Your task to perform on an android device: Open calendar and show me the first week of next month Image 0: 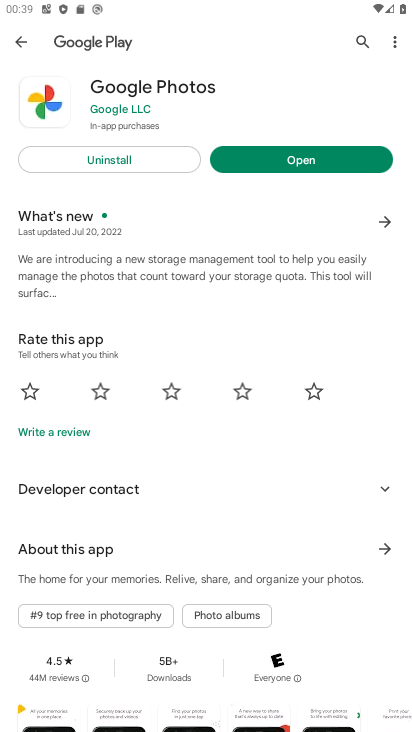
Step 0: press back button
Your task to perform on an android device: Open calendar and show me the first week of next month Image 1: 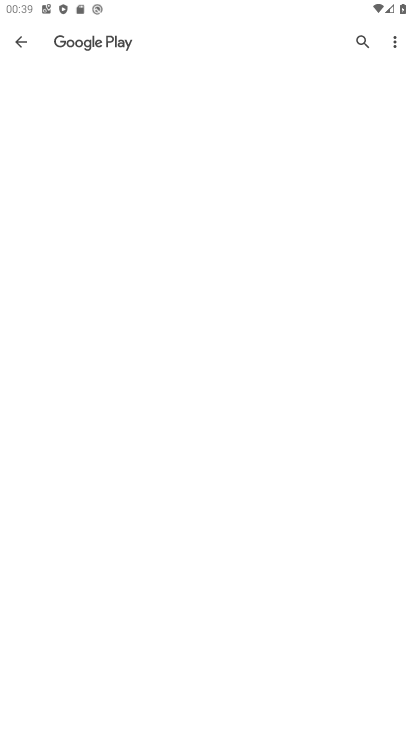
Step 1: press back button
Your task to perform on an android device: Open calendar and show me the first week of next month Image 2: 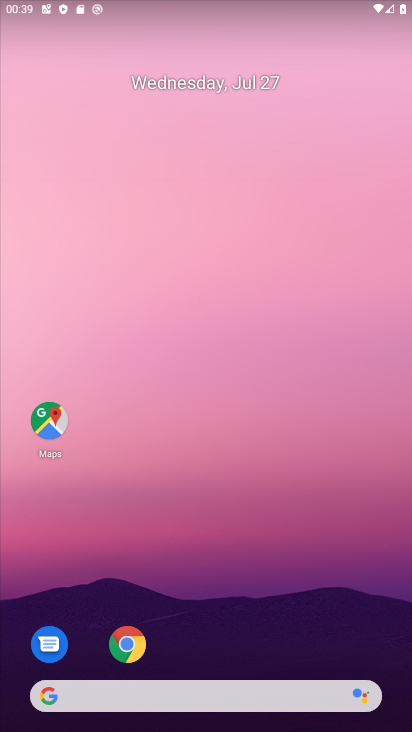
Step 2: drag from (282, 516) to (204, 336)
Your task to perform on an android device: Open calendar and show me the first week of next month Image 3: 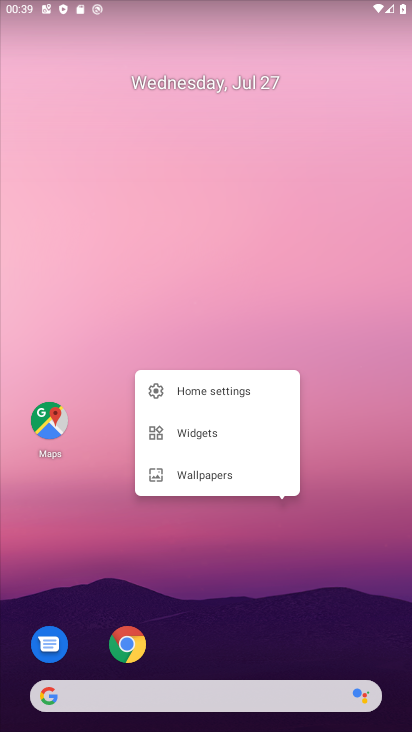
Step 3: drag from (309, 458) to (268, 21)
Your task to perform on an android device: Open calendar and show me the first week of next month Image 4: 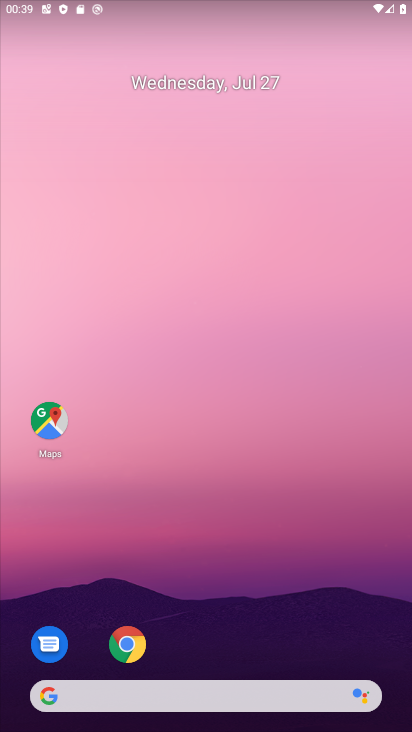
Step 4: drag from (251, 490) to (195, 267)
Your task to perform on an android device: Open calendar and show me the first week of next month Image 5: 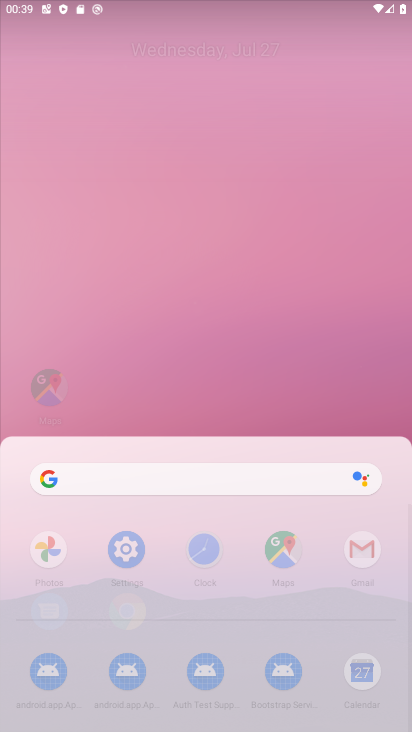
Step 5: drag from (178, 440) to (178, 166)
Your task to perform on an android device: Open calendar and show me the first week of next month Image 6: 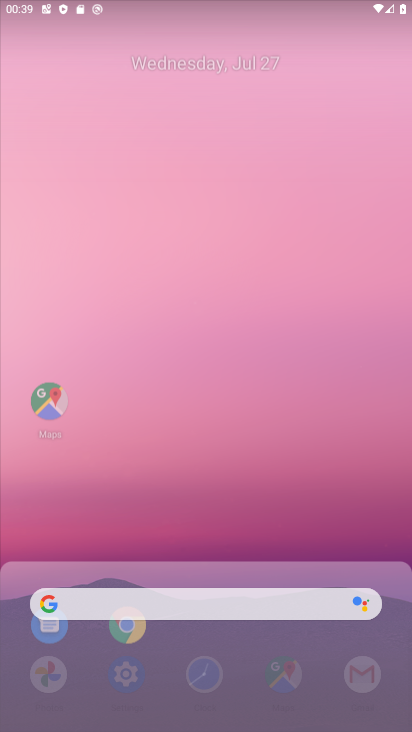
Step 6: drag from (177, 339) to (161, 88)
Your task to perform on an android device: Open calendar and show me the first week of next month Image 7: 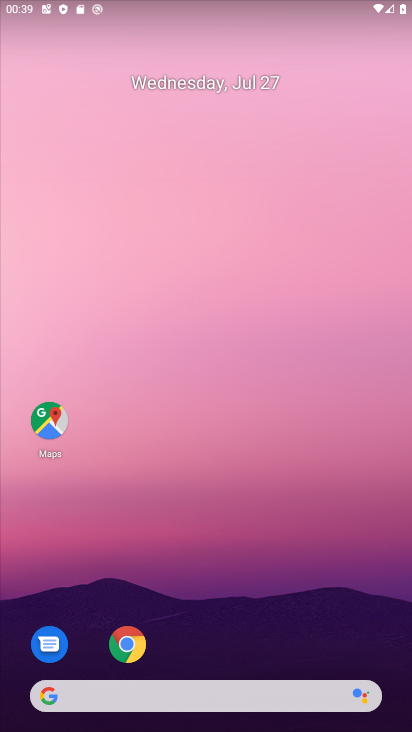
Step 7: drag from (233, 341) to (233, 226)
Your task to perform on an android device: Open calendar and show me the first week of next month Image 8: 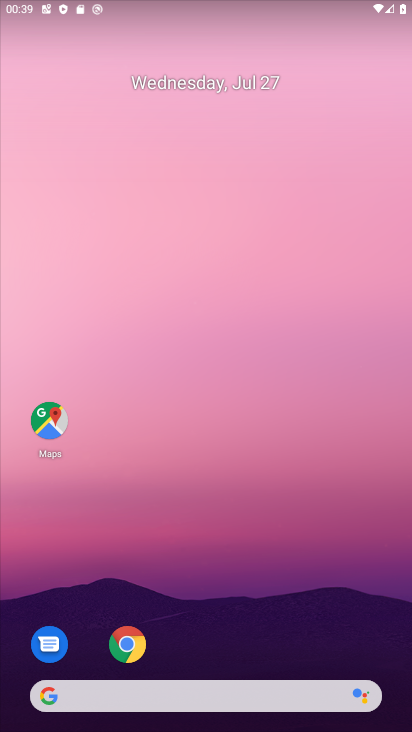
Step 8: drag from (258, 505) to (258, 131)
Your task to perform on an android device: Open calendar and show me the first week of next month Image 9: 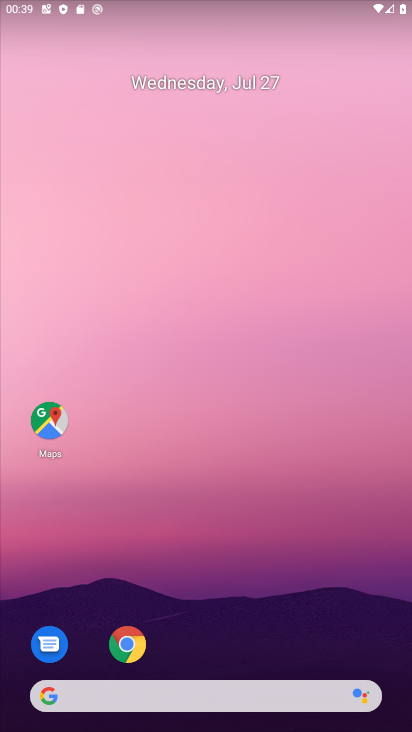
Step 9: drag from (280, 359) to (284, 41)
Your task to perform on an android device: Open calendar and show me the first week of next month Image 10: 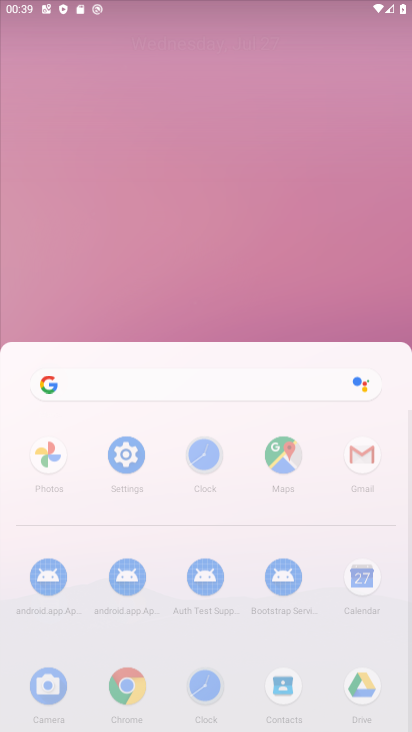
Step 10: drag from (280, 342) to (277, 0)
Your task to perform on an android device: Open calendar and show me the first week of next month Image 11: 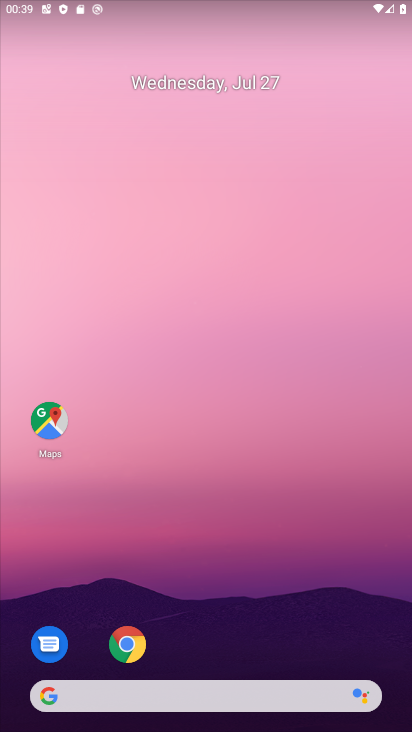
Step 11: drag from (221, 439) to (218, 3)
Your task to perform on an android device: Open calendar and show me the first week of next month Image 12: 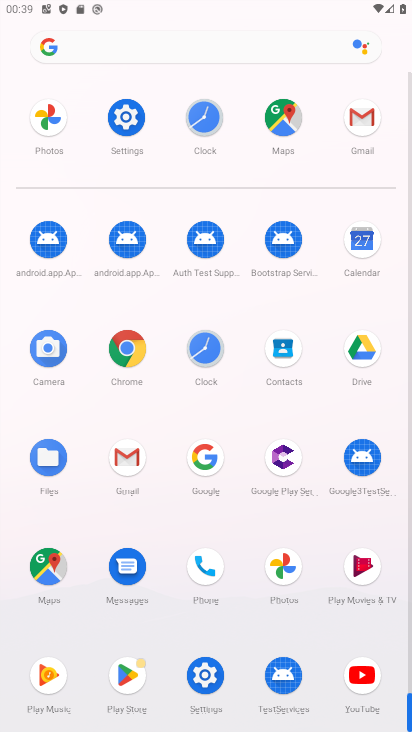
Step 12: click (359, 245)
Your task to perform on an android device: Open calendar and show me the first week of next month Image 13: 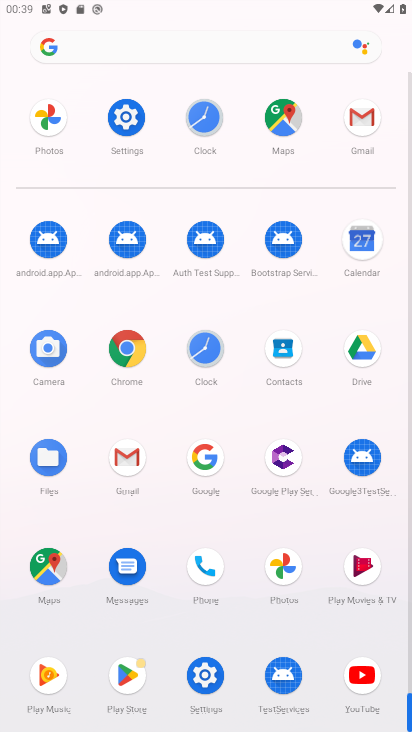
Step 13: click (360, 245)
Your task to perform on an android device: Open calendar and show me the first week of next month Image 14: 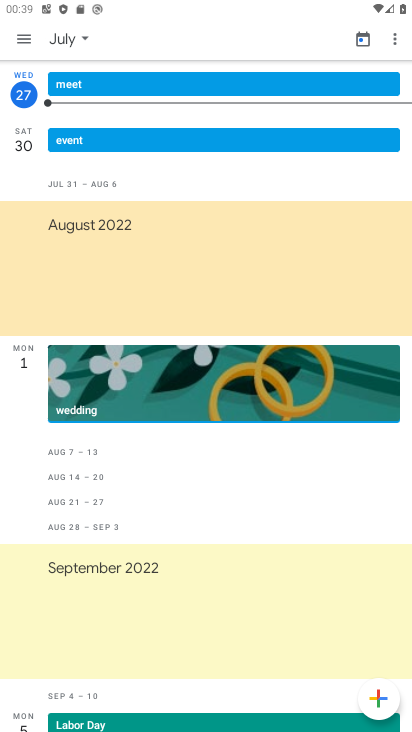
Step 14: click (83, 33)
Your task to perform on an android device: Open calendar and show me the first week of next month Image 15: 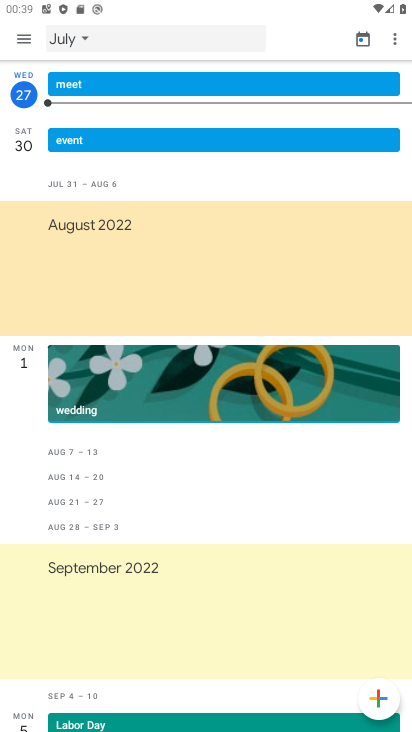
Step 15: click (83, 33)
Your task to perform on an android device: Open calendar and show me the first week of next month Image 16: 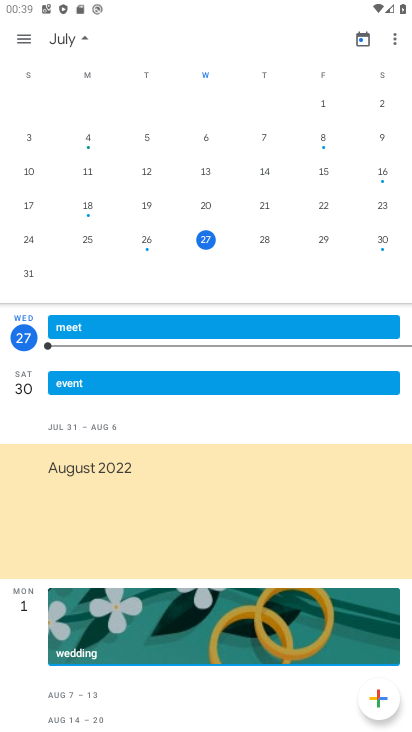
Step 16: task complete